Your task to perform on an android device: turn notification dots on Image 0: 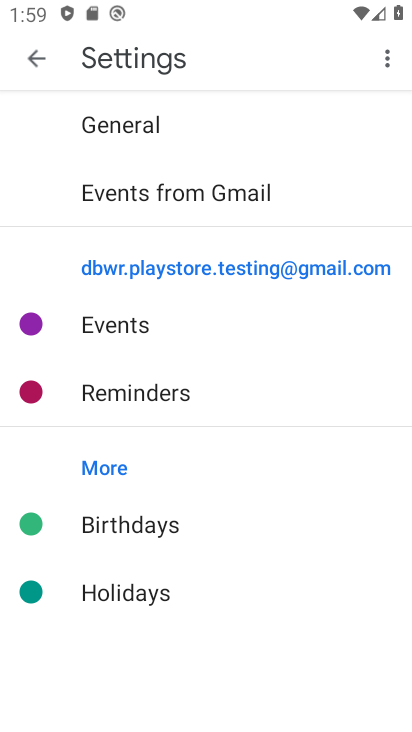
Step 0: press home button
Your task to perform on an android device: turn notification dots on Image 1: 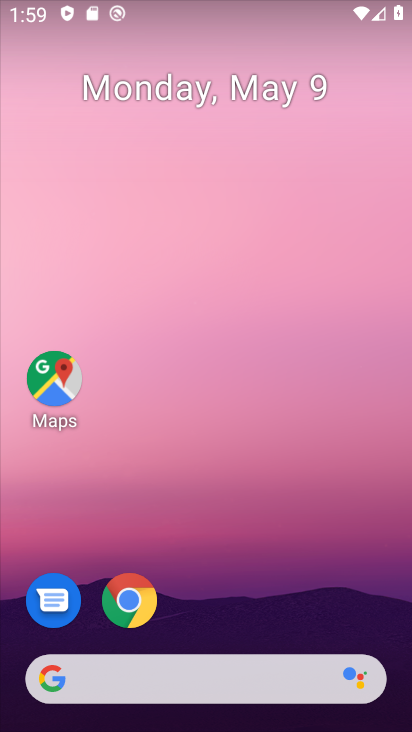
Step 1: drag from (232, 614) to (196, 19)
Your task to perform on an android device: turn notification dots on Image 2: 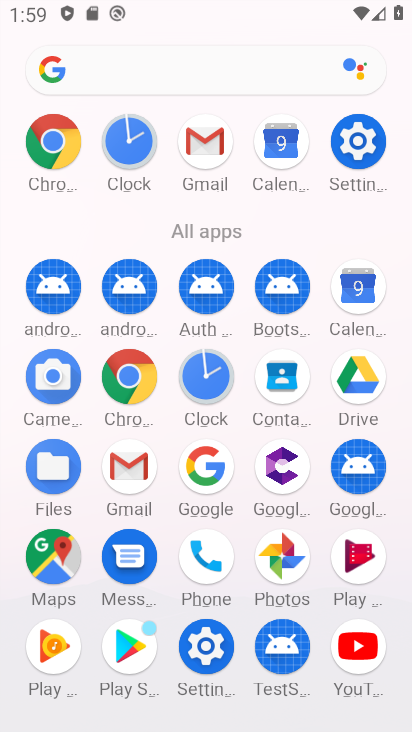
Step 2: click (345, 168)
Your task to perform on an android device: turn notification dots on Image 3: 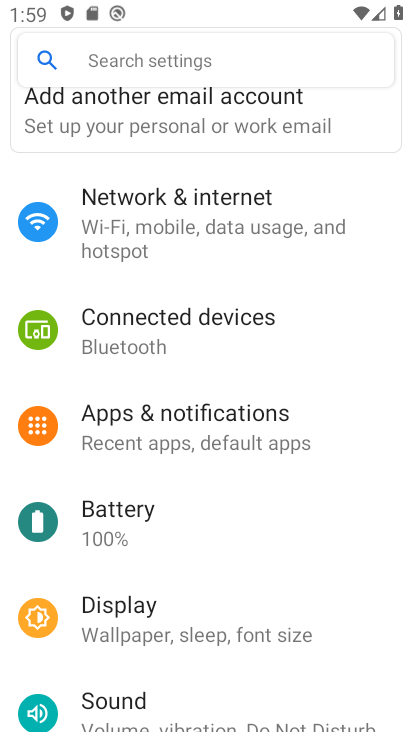
Step 3: click (272, 435)
Your task to perform on an android device: turn notification dots on Image 4: 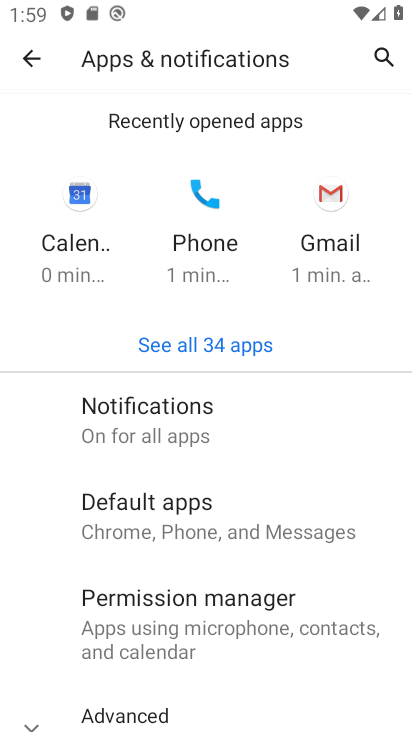
Step 4: click (199, 425)
Your task to perform on an android device: turn notification dots on Image 5: 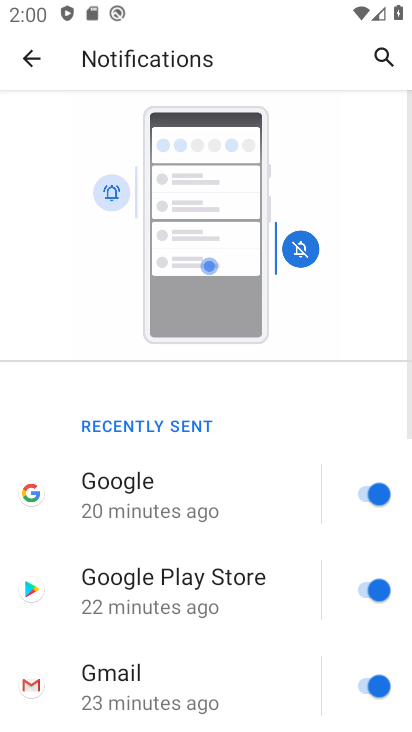
Step 5: drag from (204, 610) to (159, 187)
Your task to perform on an android device: turn notification dots on Image 6: 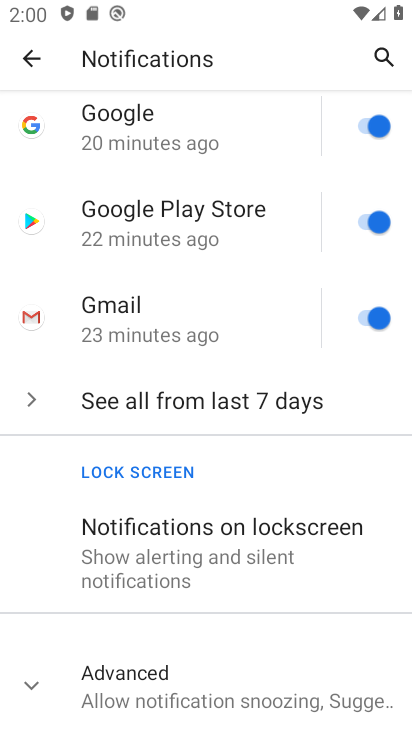
Step 6: click (161, 665)
Your task to perform on an android device: turn notification dots on Image 7: 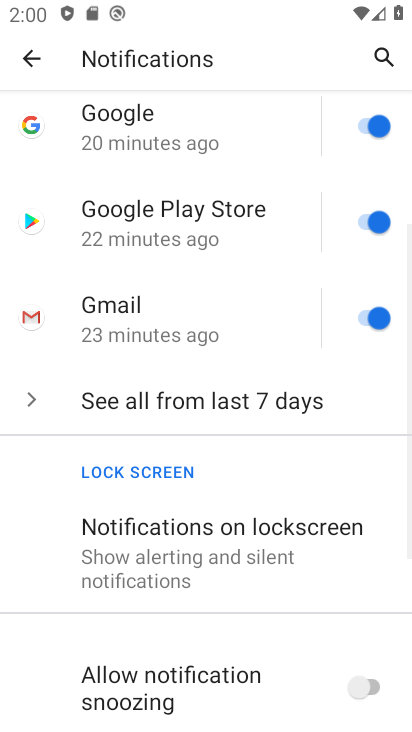
Step 7: task complete